Your task to perform on an android device: change alarm snooze length Image 0: 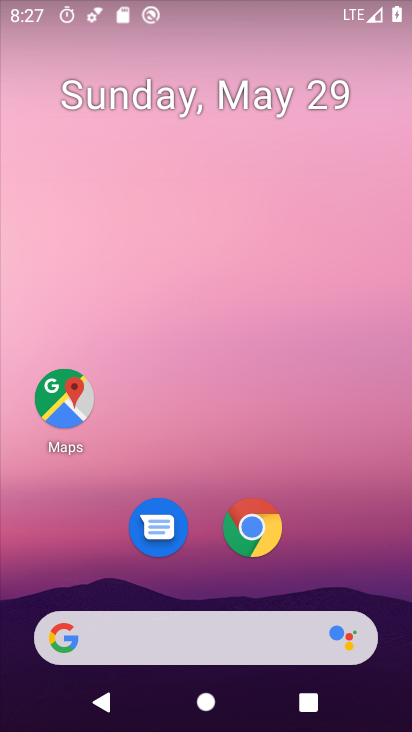
Step 0: press home button
Your task to perform on an android device: change alarm snooze length Image 1: 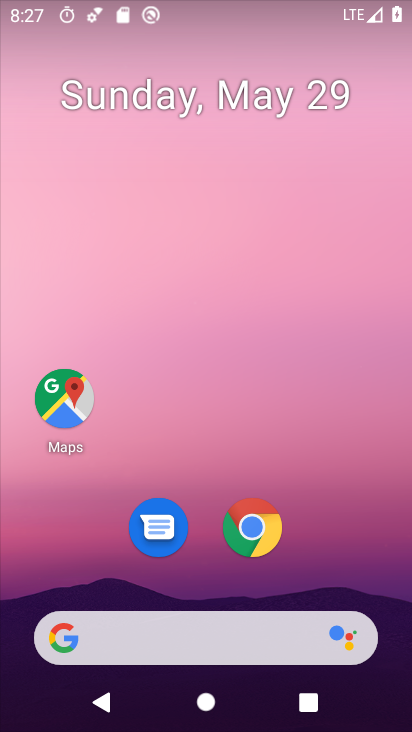
Step 1: drag from (206, 584) to (210, 62)
Your task to perform on an android device: change alarm snooze length Image 2: 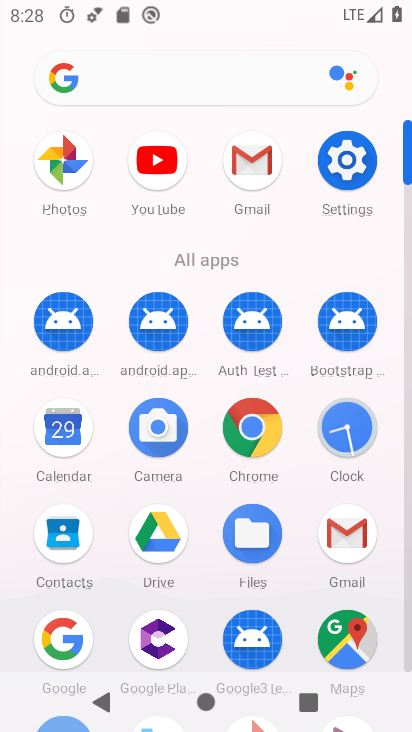
Step 2: click (346, 420)
Your task to perform on an android device: change alarm snooze length Image 3: 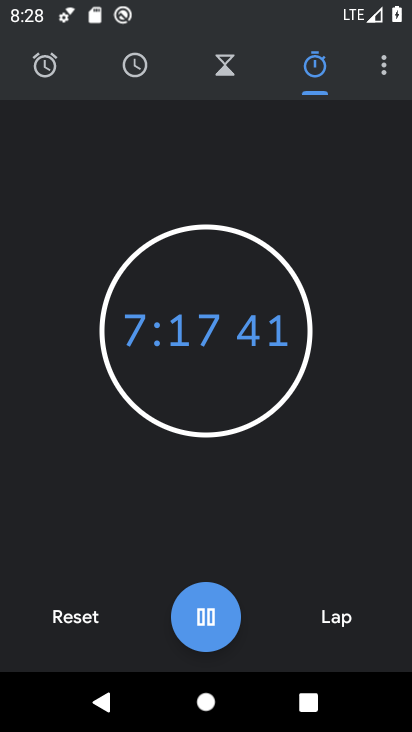
Step 3: click (88, 613)
Your task to perform on an android device: change alarm snooze length Image 4: 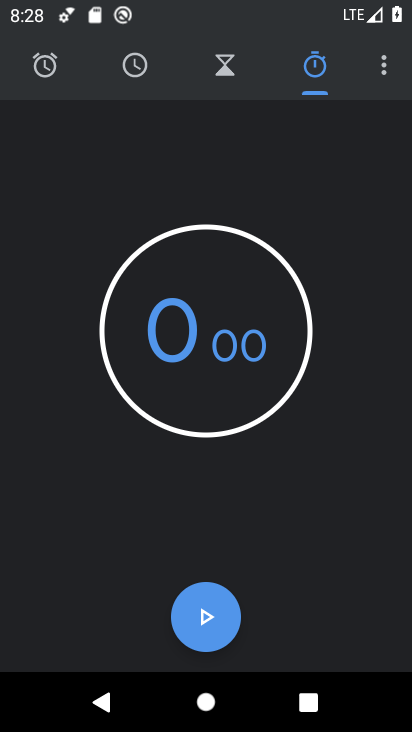
Step 4: click (379, 72)
Your task to perform on an android device: change alarm snooze length Image 5: 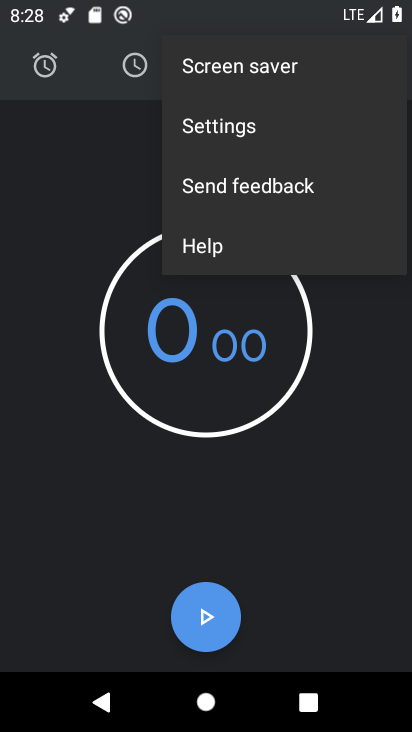
Step 5: click (263, 121)
Your task to perform on an android device: change alarm snooze length Image 6: 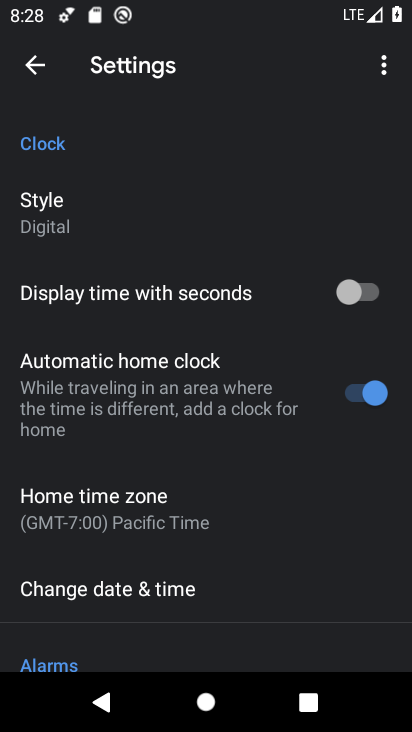
Step 6: drag from (204, 619) to (197, 122)
Your task to perform on an android device: change alarm snooze length Image 7: 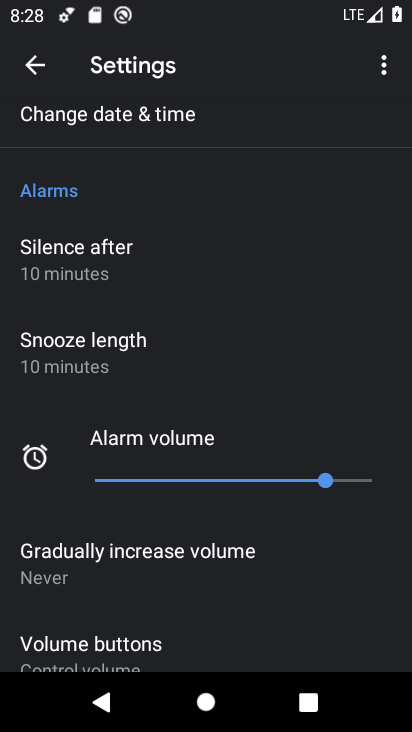
Step 7: click (145, 368)
Your task to perform on an android device: change alarm snooze length Image 8: 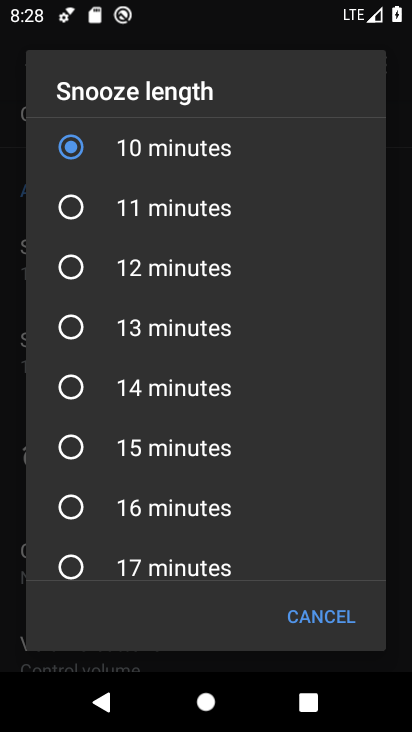
Step 8: drag from (174, 196) to (159, 549)
Your task to perform on an android device: change alarm snooze length Image 9: 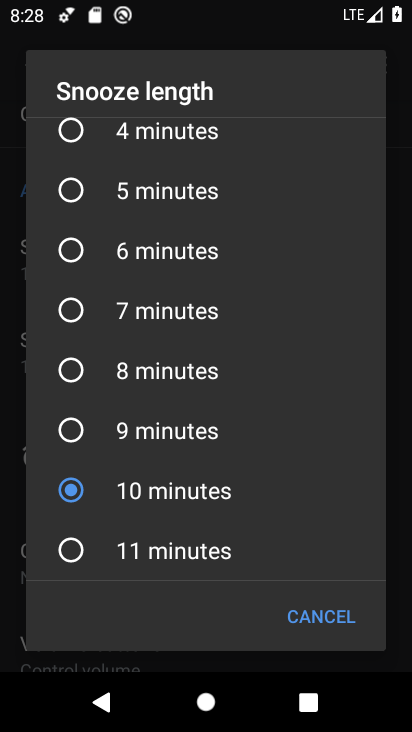
Step 9: click (76, 248)
Your task to perform on an android device: change alarm snooze length Image 10: 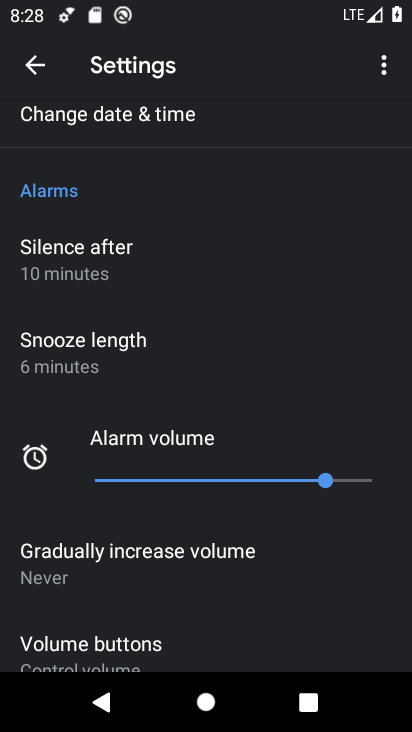
Step 10: task complete